Your task to perform on an android device: set the timer Image 0: 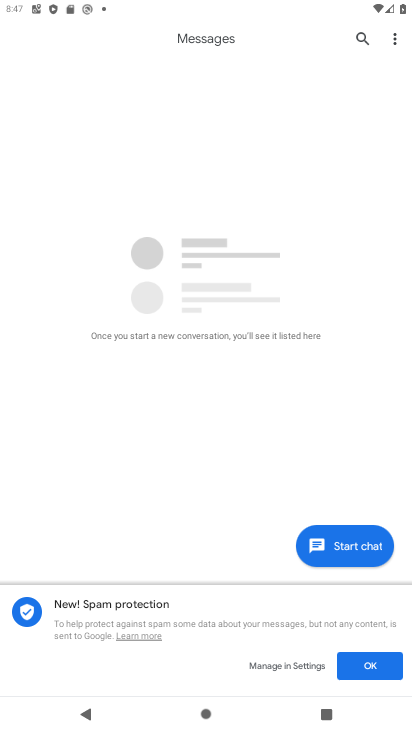
Step 0: press back button
Your task to perform on an android device: set the timer Image 1: 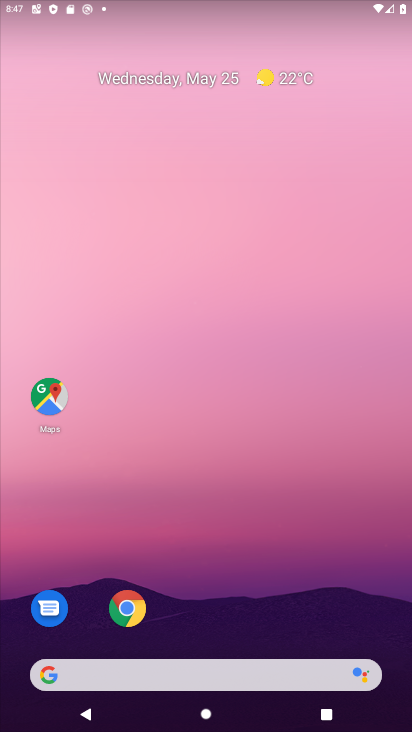
Step 1: drag from (278, 577) to (269, 208)
Your task to perform on an android device: set the timer Image 2: 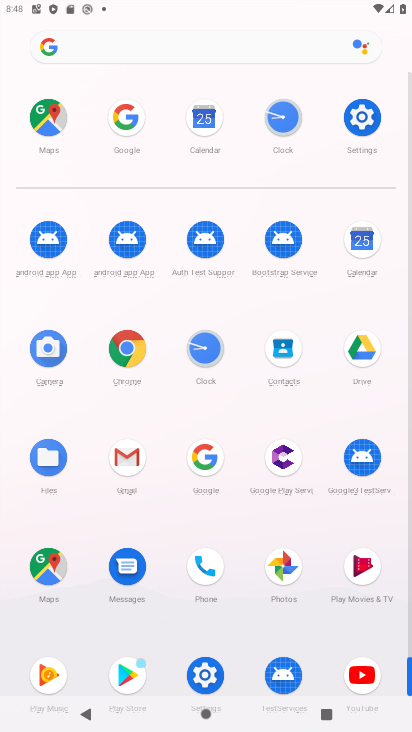
Step 2: click (284, 120)
Your task to perform on an android device: set the timer Image 3: 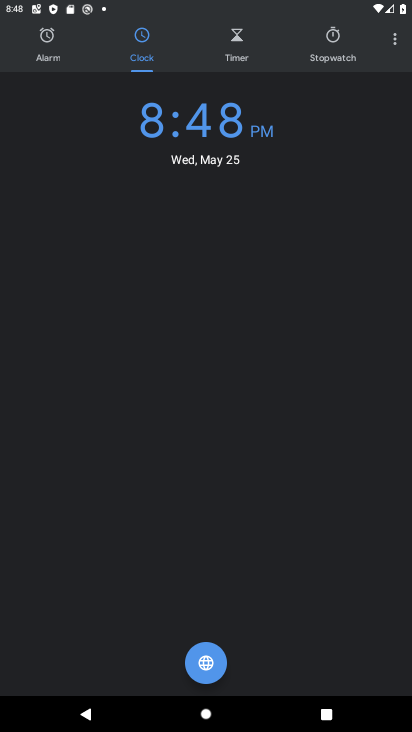
Step 3: click (236, 37)
Your task to perform on an android device: set the timer Image 4: 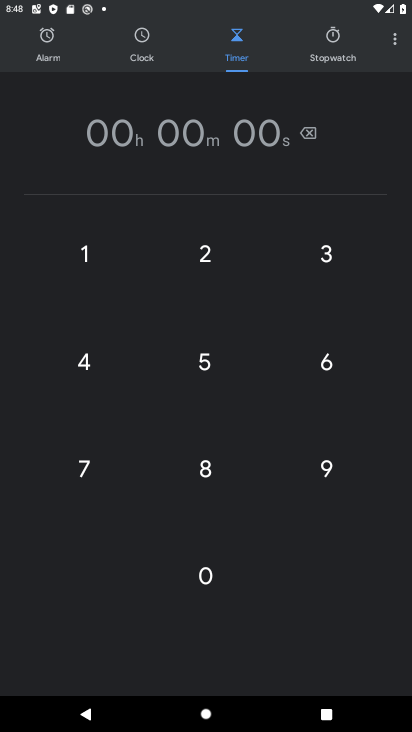
Step 4: type "123"
Your task to perform on an android device: set the timer Image 5: 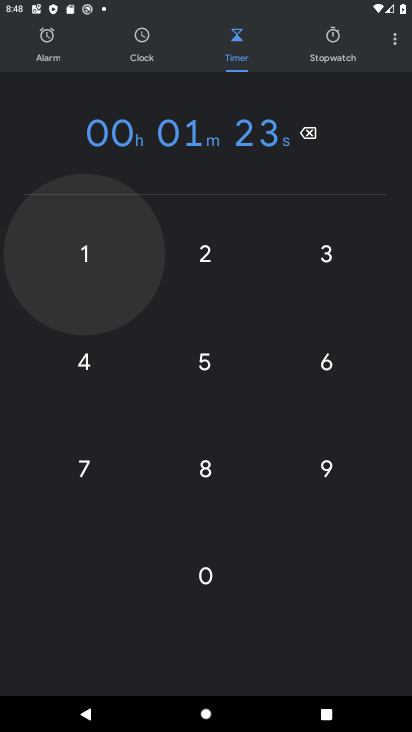
Step 5: type ""
Your task to perform on an android device: set the timer Image 6: 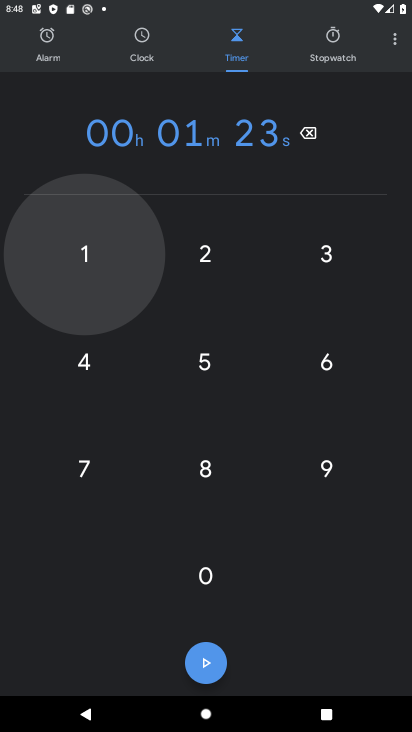
Step 6: click (206, 666)
Your task to perform on an android device: set the timer Image 7: 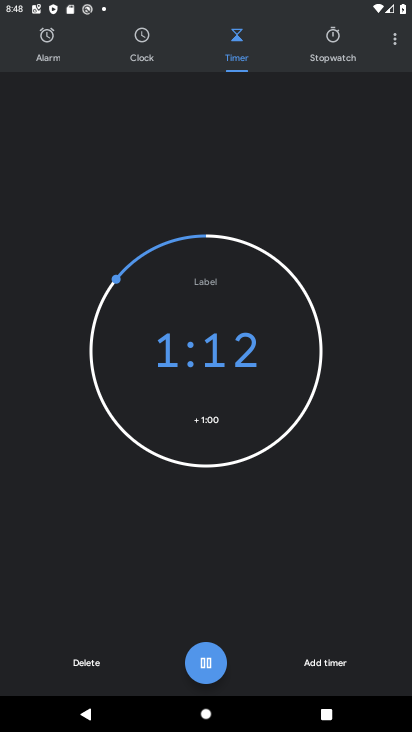
Step 7: click (205, 660)
Your task to perform on an android device: set the timer Image 8: 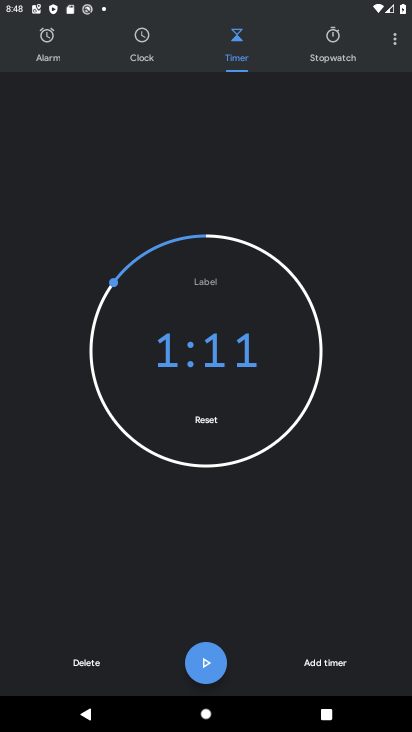
Step 8: task complete